Your task to perform on an android device: What's the weather going to be this weekend? Image 0: 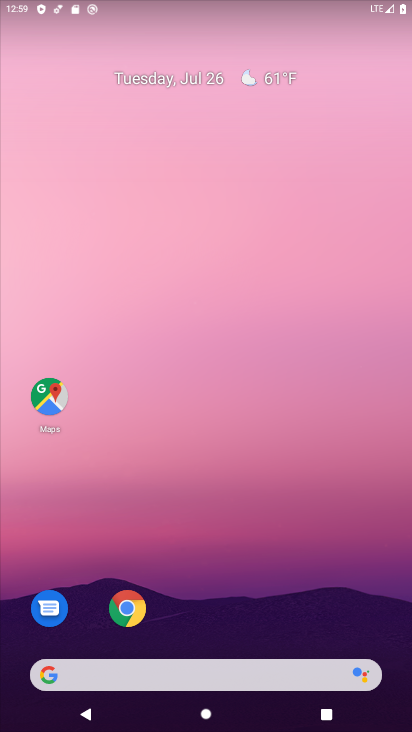
Step 0: drag from (288, 615) to (185, 116)
Your task to perform on an android device: What's the weather going to be this weekend? Image 1: 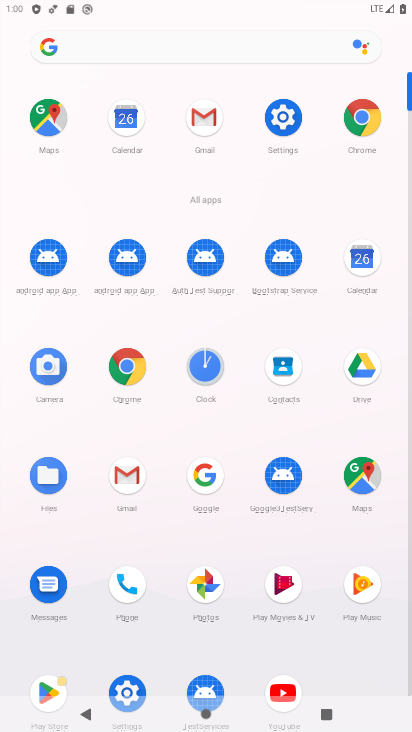
Step 1: click (370, 114)
Your task to perform on an android device: What's the weather going to be this weekend? Image 2: 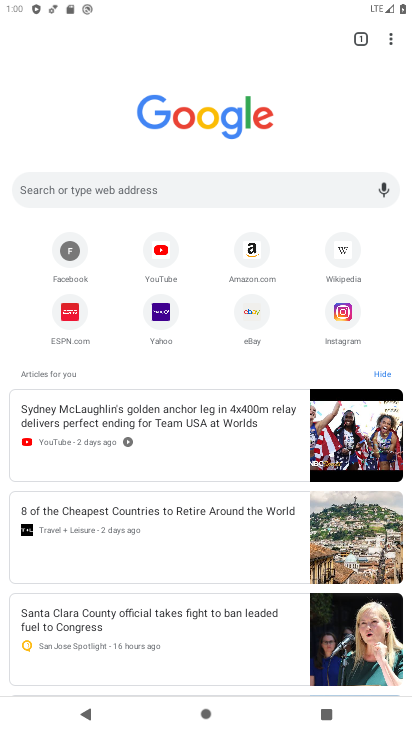
Step 2: click (245, 184)
Your task to perform on an android device: What's the weather going to be this weekend? Image 3: 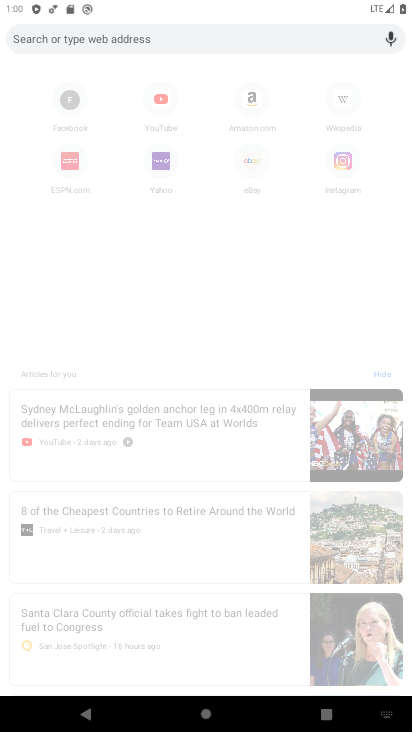
Step 3: type "What's the weather going to be this weekend?"
Your task to perform on an android device: What's the weather going to be this weekend? Image 4: 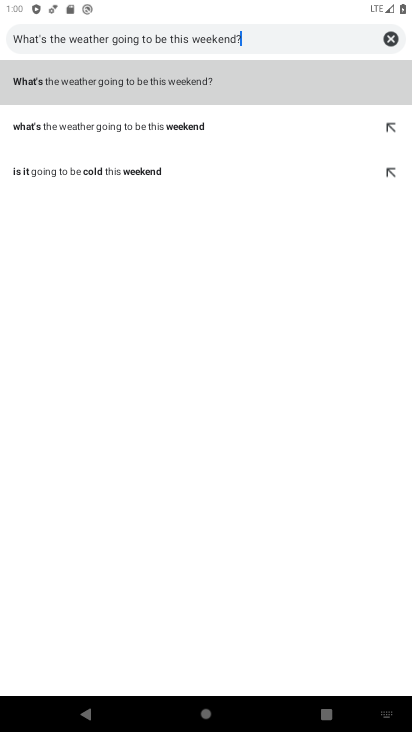
Step 4: click (133, 74)
Your task to perform on an android device: What's the weather going to be this weekend? Image 5: 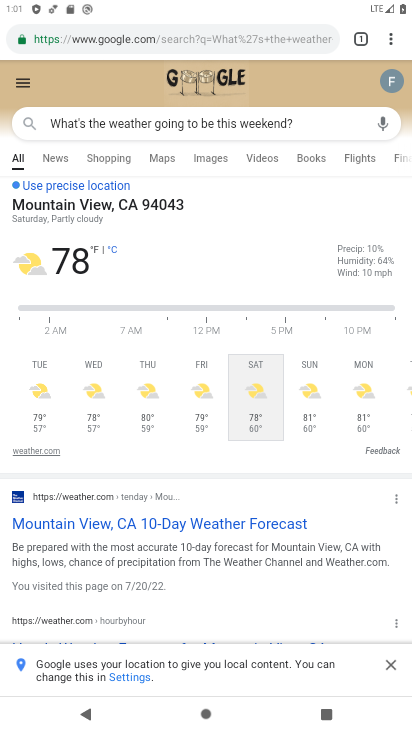
Step 5: task complete